Your task to perform on an android device: Turn off the flashlight Image 0: 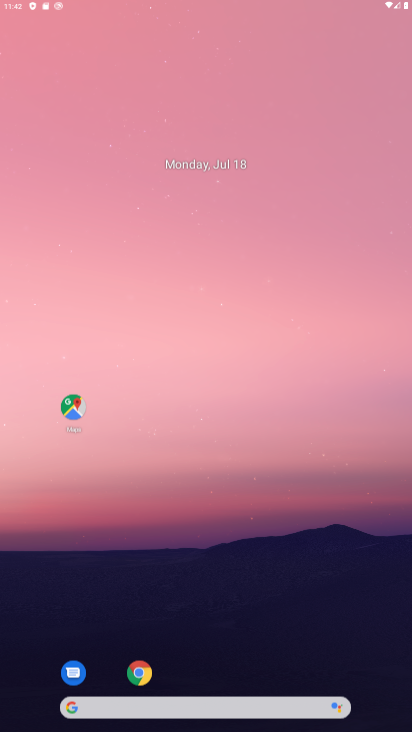
Step 0: press home button
Your task to perform on an android device: Turn off the flashlight Image 1: 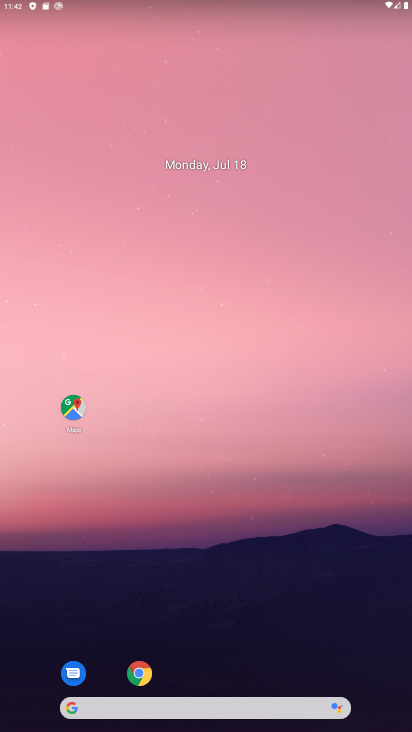
Step 1: drag from (238, 650) to (230, 72)
Your task to perform on an android device: Turn off the flashlight Image 2: 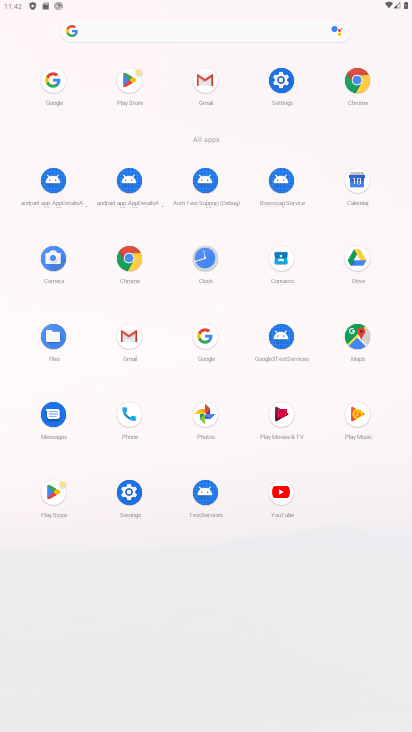
Step 2: click (278, 81)
Your task to perform on an android device: Turn off the flashlight Image 3: 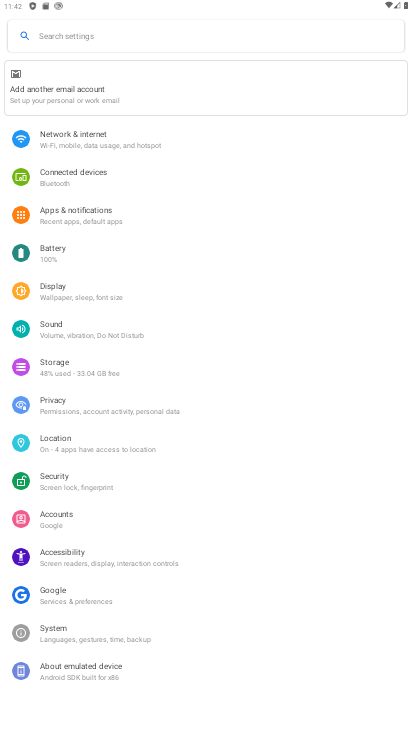
Step 3: click (162, 33)
Your task to perform on an android device: Turn off the flashlight Image 4: 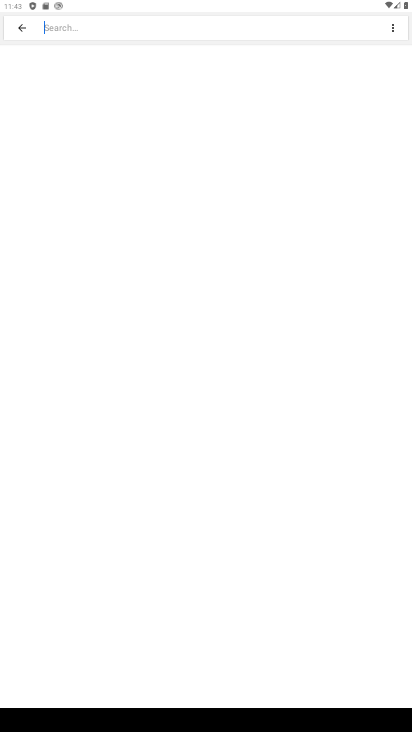
Step 4: type "flashlight"
Your task to perform on an android device: Turn off the flashlight Image 5: 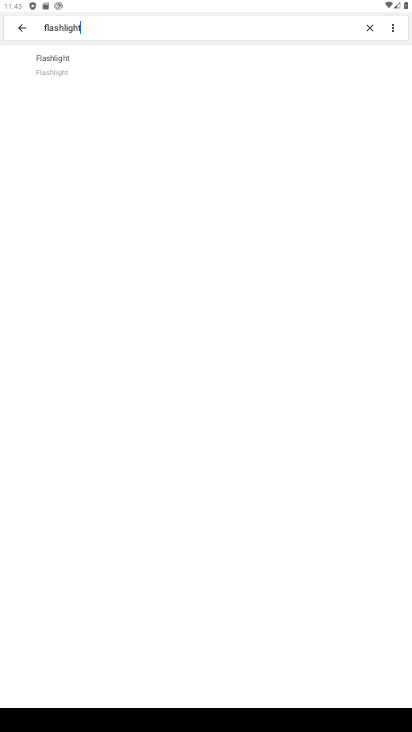
Step 5: click (81, 65)
Your task to perform on an android device: Turn off the flashlight Image 6: 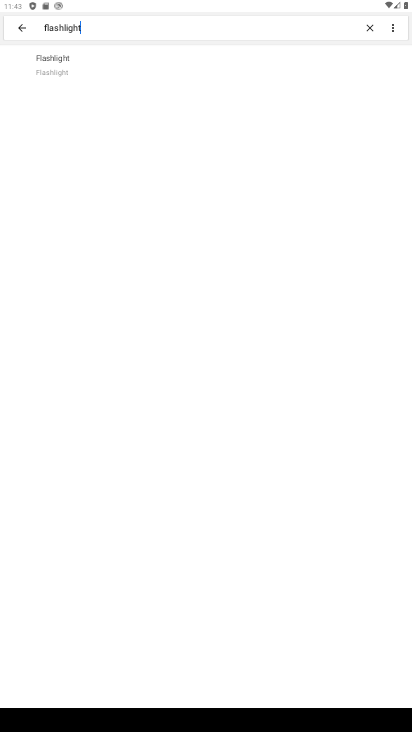
Step 6: task complete